Your task to perform on an android device: When is my next meeting? Image 0: 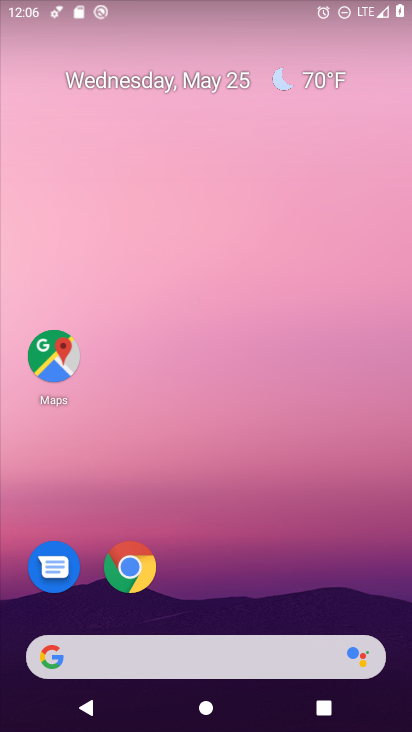
Step 0: drag from (398, 710) to (361, 247)
Your task to perform on an android device: When is my next meeting? Image 1: 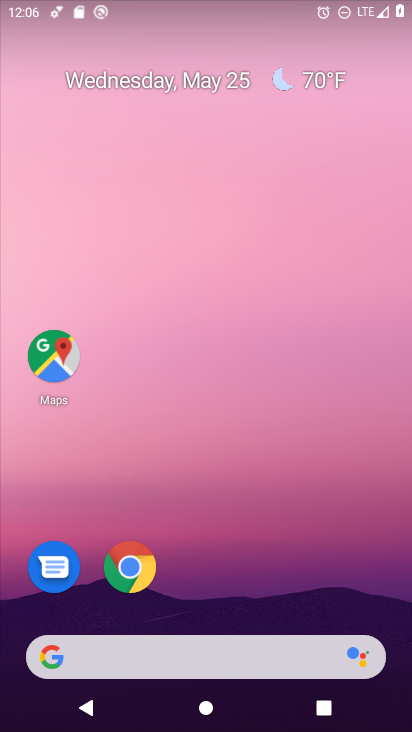
Step 1: drag from (400, 699) to (369, 300)
Your task to perform on an android device: When is my next meeting? Image 2: 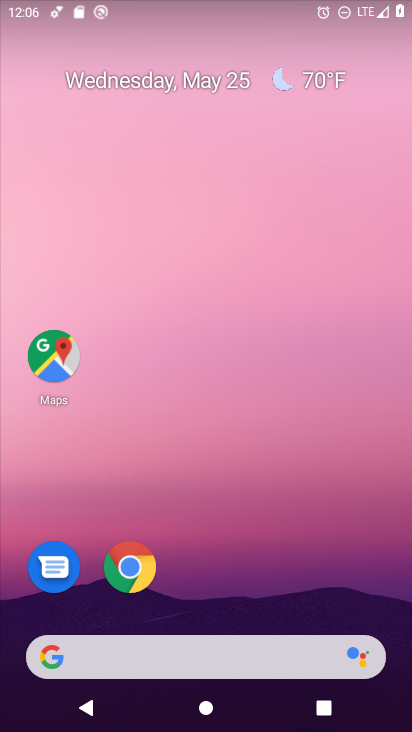
Step 2: drag from (395, 708) to (342, 171)
Your task to perform on an android device: When is my next meeting? Image 3: 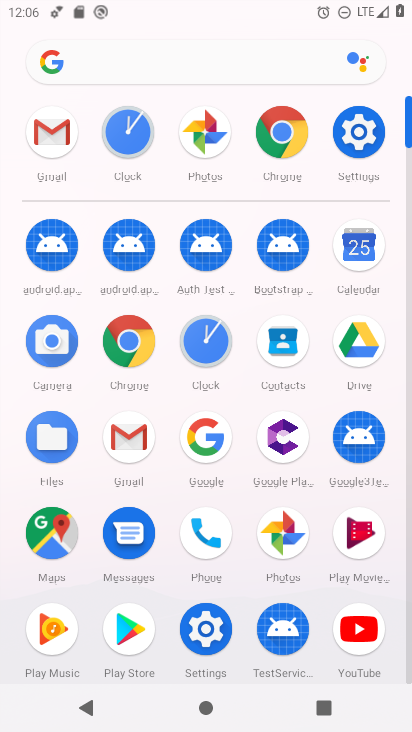
Step 3: click (360, 259)
Your task to perform on an android device: When is my next meeting? Image 4: 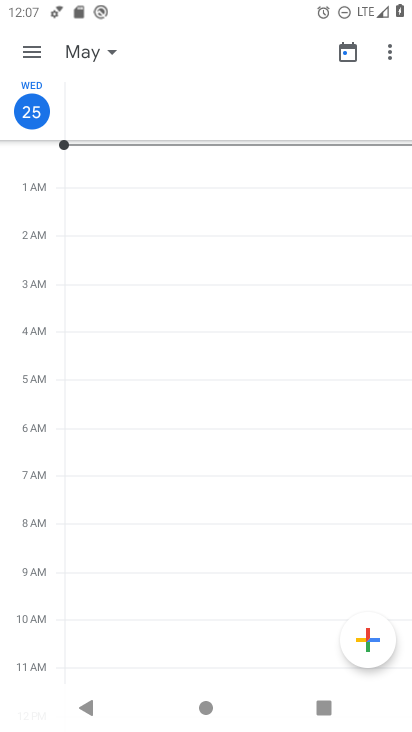
Step 4: click (30, 50)
Your task to perform on an android device: When is my next meeting? Image 5: 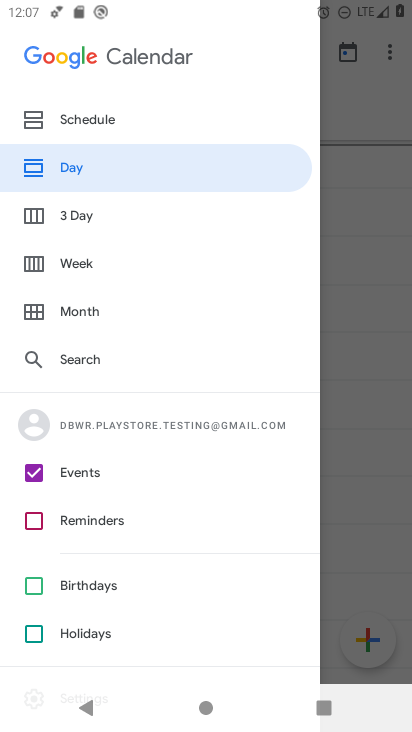
Step 5: click (100, 116)
Your task to perform on an android device: When is my next meeting? Image 6: 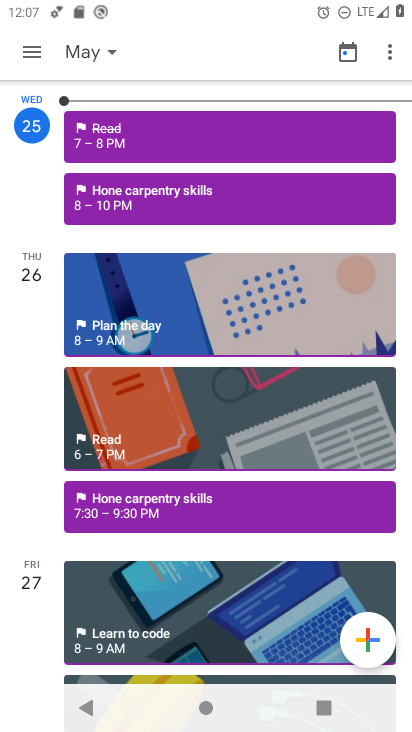
Step 6: task complete